Your task to perform on an android device: turn on wifi Image 0: 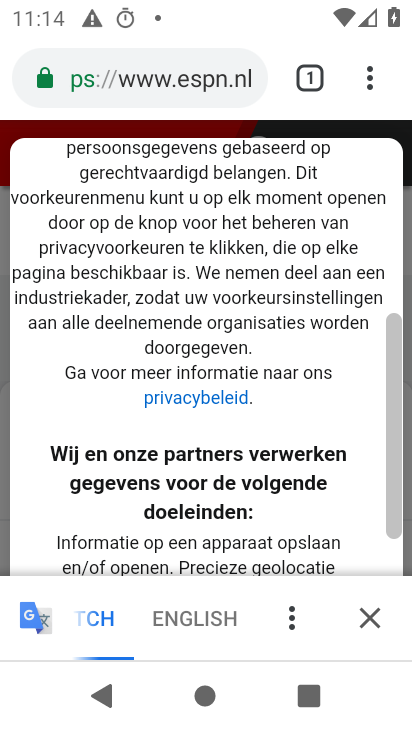
Step 0: drag from (158, 17) to (150, 501)
Your task to perform on an android device: turn on wifi Image 1: 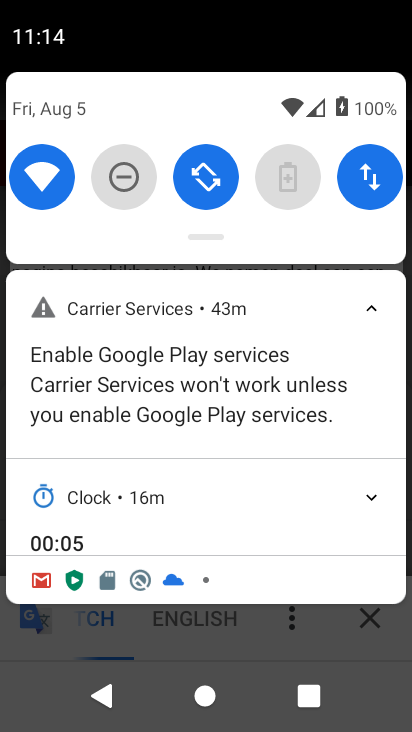
Step 1: task complete